Your task to perform on an android device: delete location history Image 0: 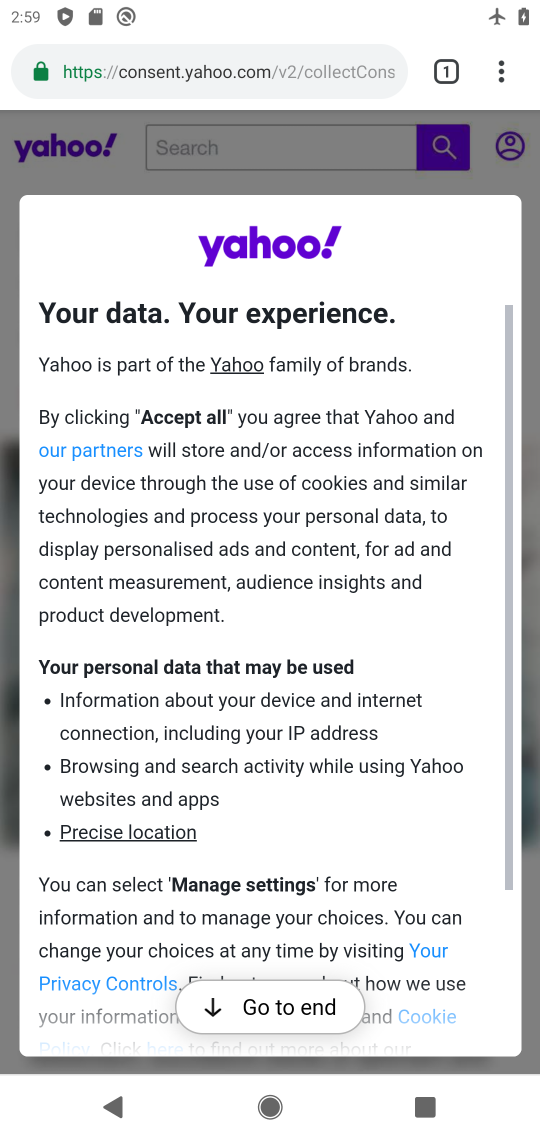
Step 0: press home button
Your task to perform on an android device: delete location history Image 1: 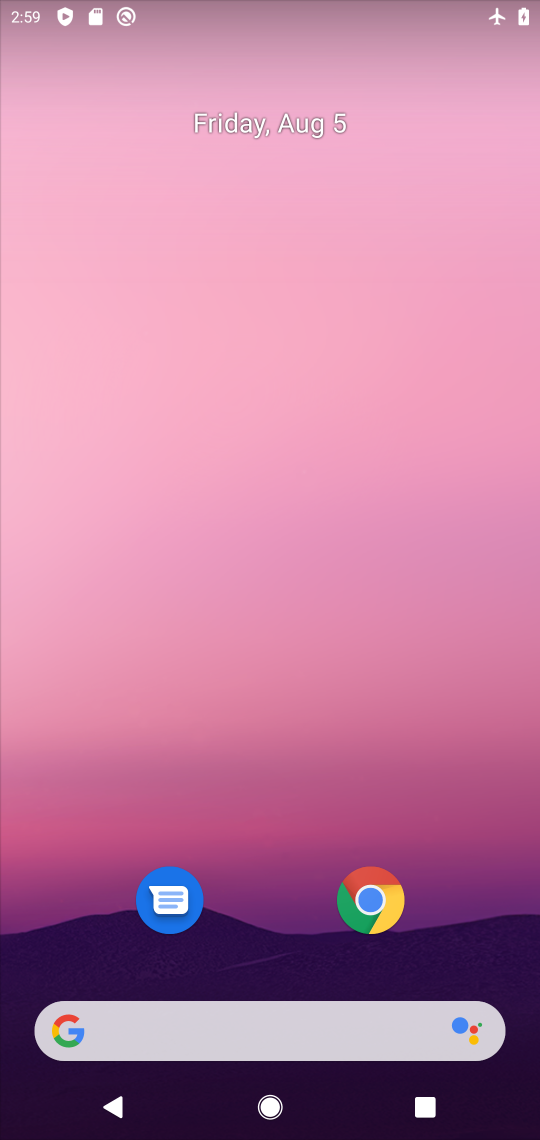
Step 1: drag from (278, 950) to (298, 28)
Your task to perform on an android device: delete location history Image 2: 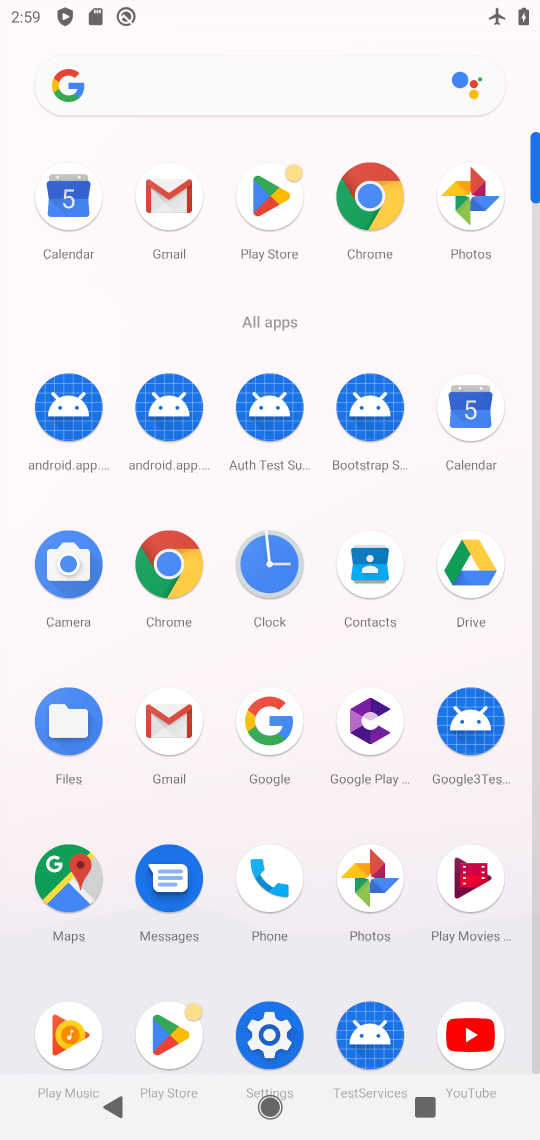
Step 2: click (73, 889)
Your task to perform on an android device: delete location history Image 3: 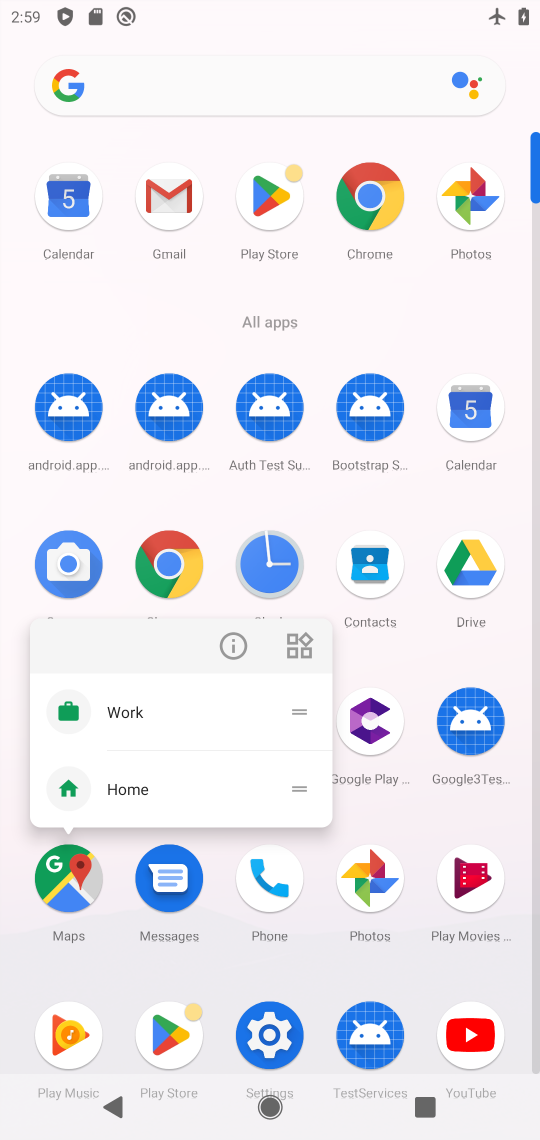
Step 3: click (78, 885)
Your task to perform on an android device: delete location history Image 4: 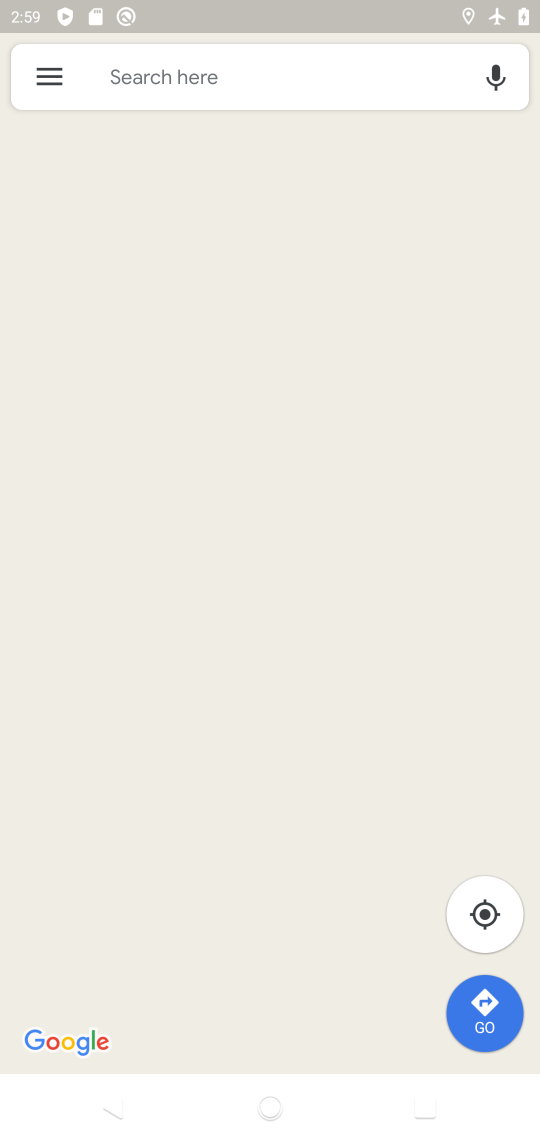
Step 4: click (58, 75)
Your task to perform on an android device: delete location history Image 5: 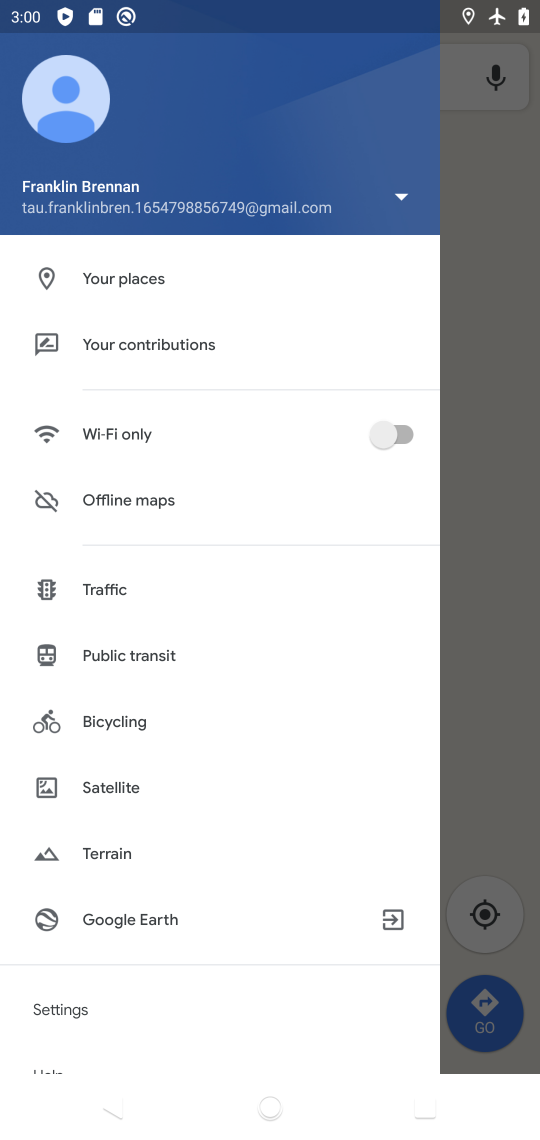
Step 5: task complete